Your task to perform on an android device: turn on the 12-hour format for clock Image 0: 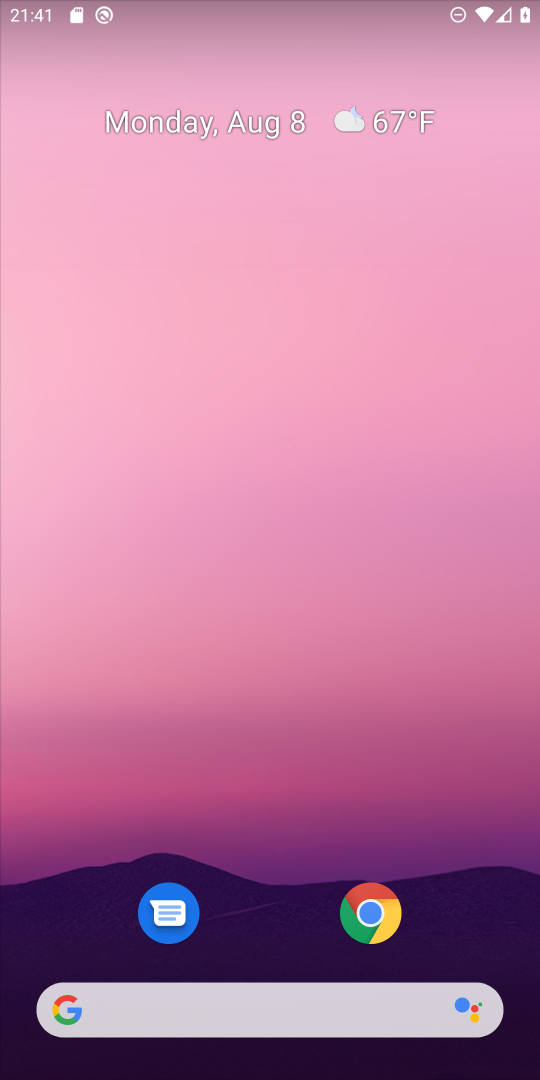
Step 0: drag from (189, 1014) to (245, 190)
Your task to perform on an android device: turn on the 12-hour format for clock Image 1: 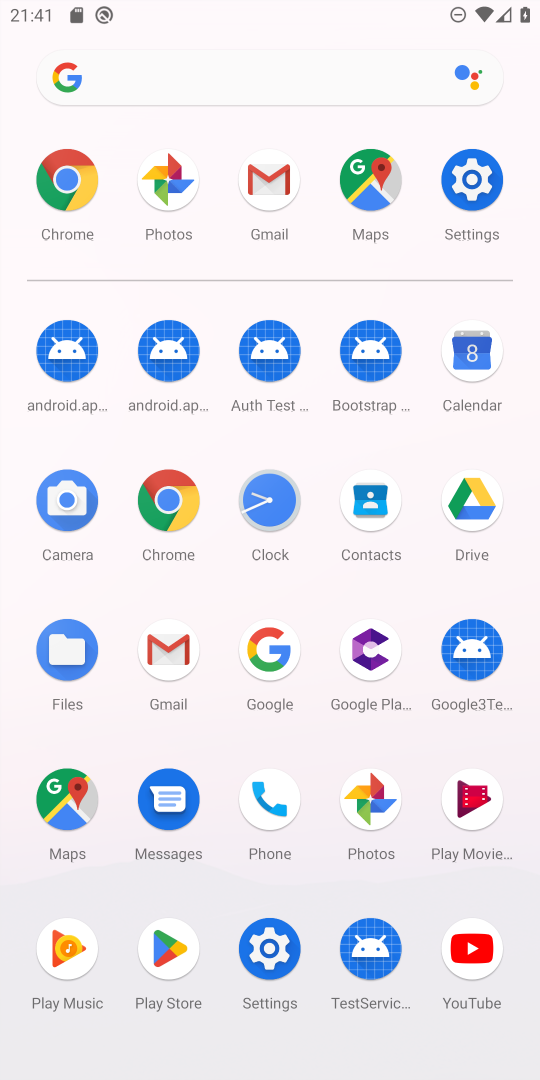
Step 1: click (269, 501)
Your task to perform on an android device: turn on the 12-hour format for clock Image 2: 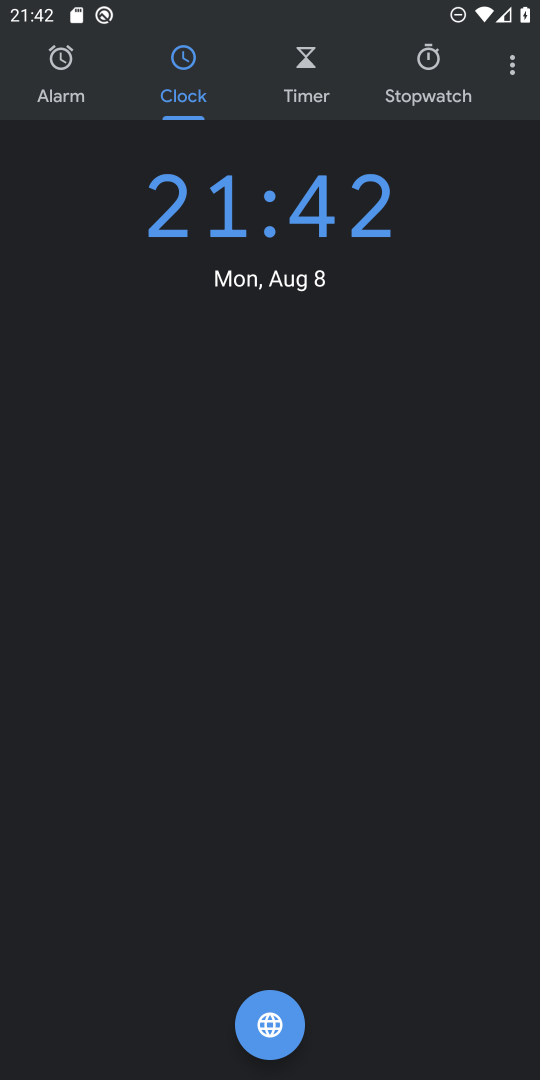
Step 2: click (513, 70)
Your task to perform on an android device: turn on the 12-hour format for clock Image 3: 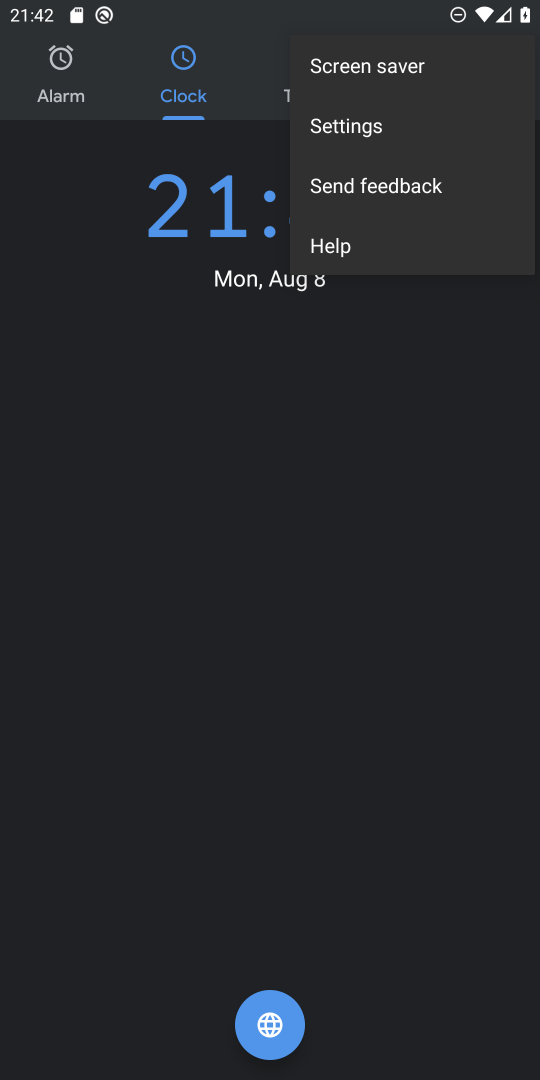
Step 3: click (361, 128)
Your task to perform on an android device: turn on the 12-hour format for clock Image 4: 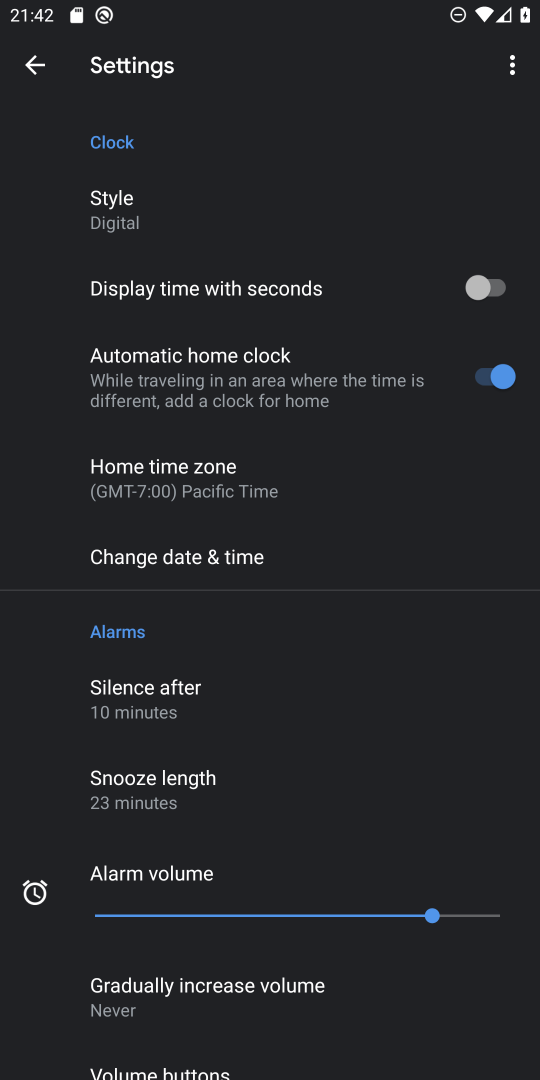
Step 4: click (194, 561)
Your task to perform on an android device: turn on the 12-hour format for clock Image 5: 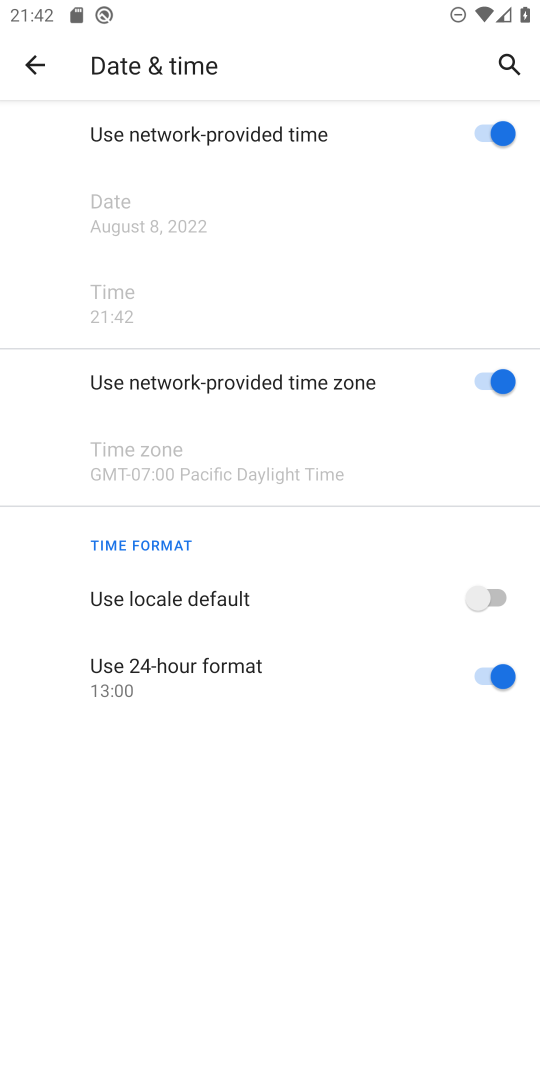
Step 5: click (469, 598)
Your task to perform on an android device: turn on the 12-hour format for clock Image 6: 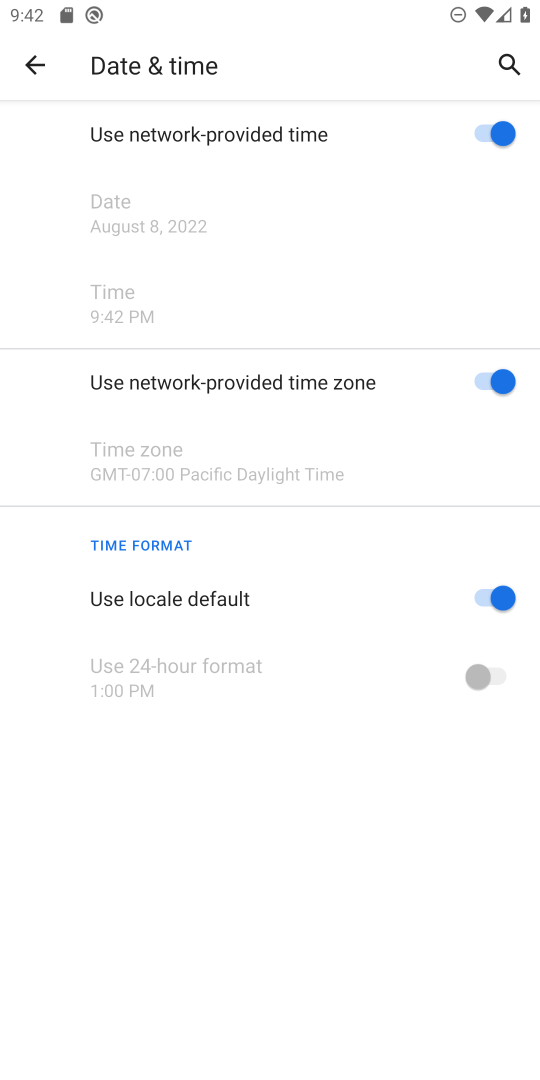
Step 6: task complete